Your task to perform on an android device: change notification settings in the gmail app Image 0: 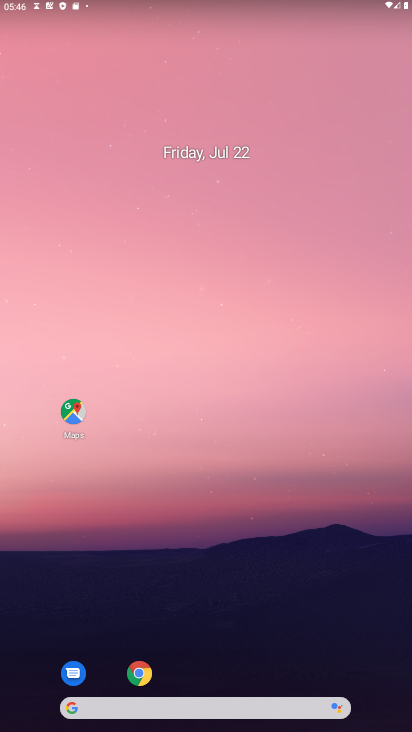
Step 0: drag from (223, 664) to (234, 265)
Your task to perform on an android device: change notification settings in the gmail app Image 1: 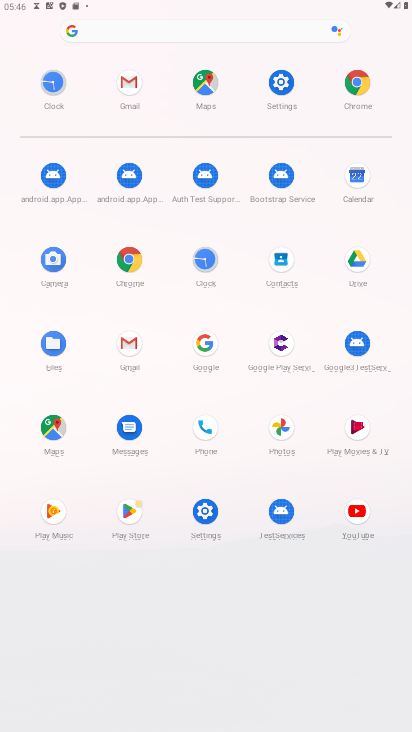
Step 1: click (129, 76)
Your task to perform on an android device: change notification settings in the gmail app Image 2: 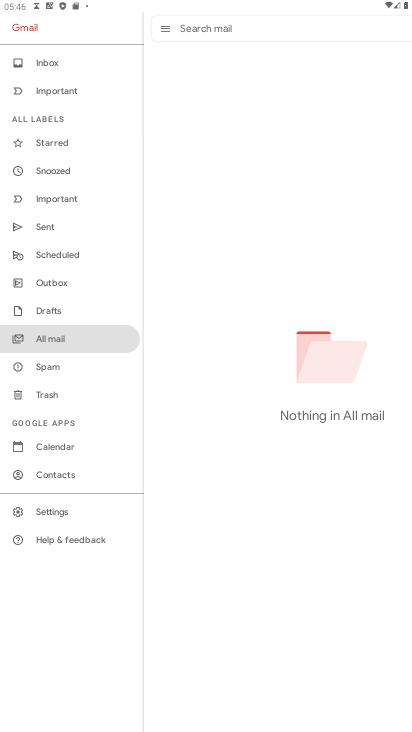
Step 2: click (35, 520)
Your task to perform on an android device: change notification settings in the gmail app Image 3: 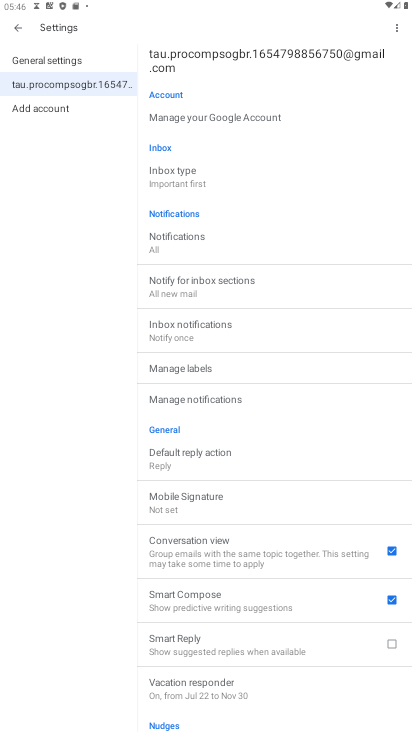
Step 3: click (224, 403)
Your task to perform on an android device: change notification settings in the gmail app Image 4: 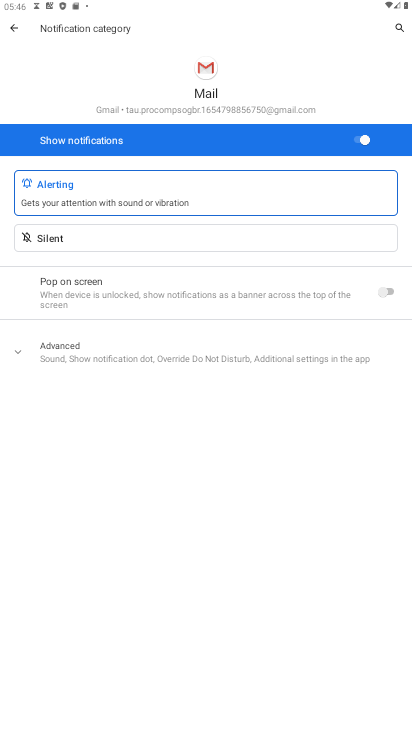
Step 4: click (368, 126)
Your task to perform on an android device: change notification settings in the gmail app Image 5: 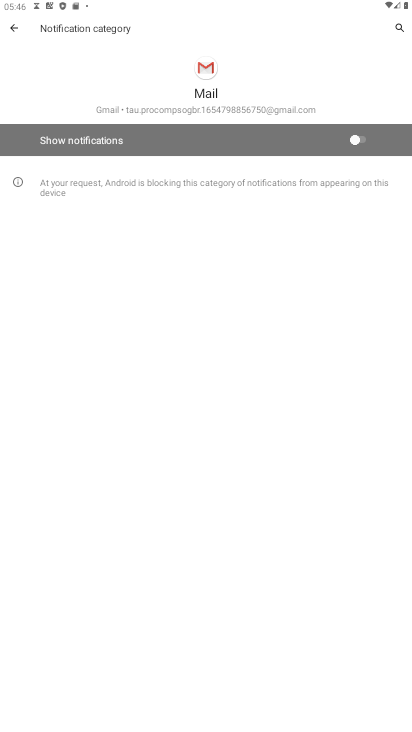
Step 5: task complete